Your task to perform on an android device: Open the calendar and show me this week's events? Image 0: 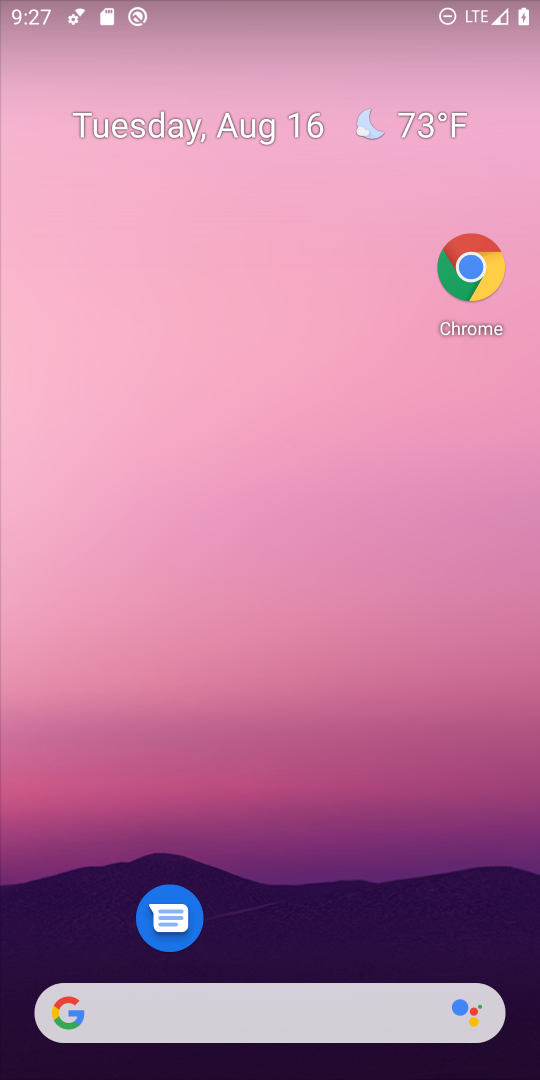
Step 0: drag from (270, 961) to (213, 113)
Your task to perform on an android device: Open the calendar and show me this week's events? Image 1: 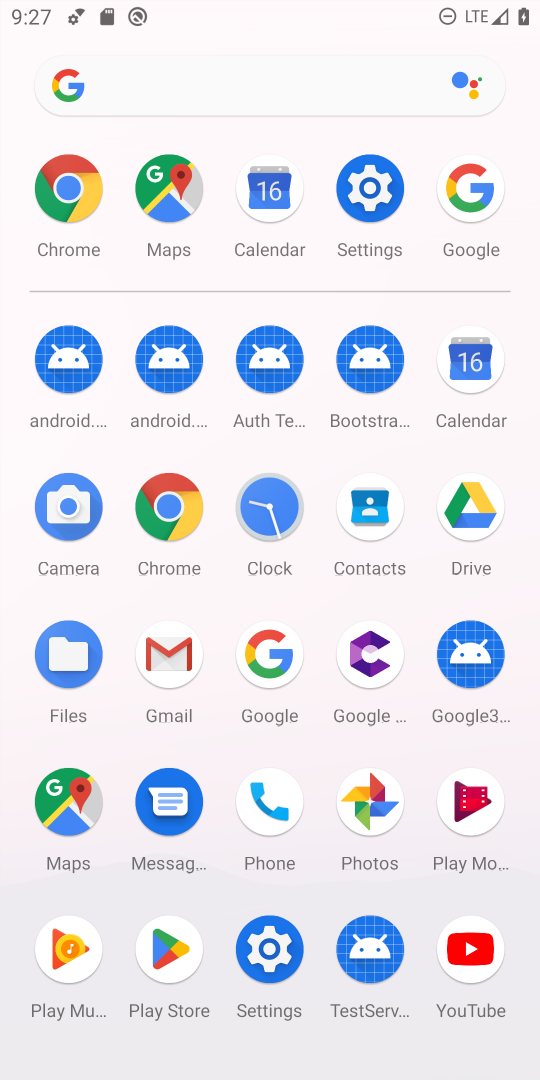
Step 1: click (477, 393)
Your task to perform on an android device: Open the calendar and show me this week's events? Image 2: 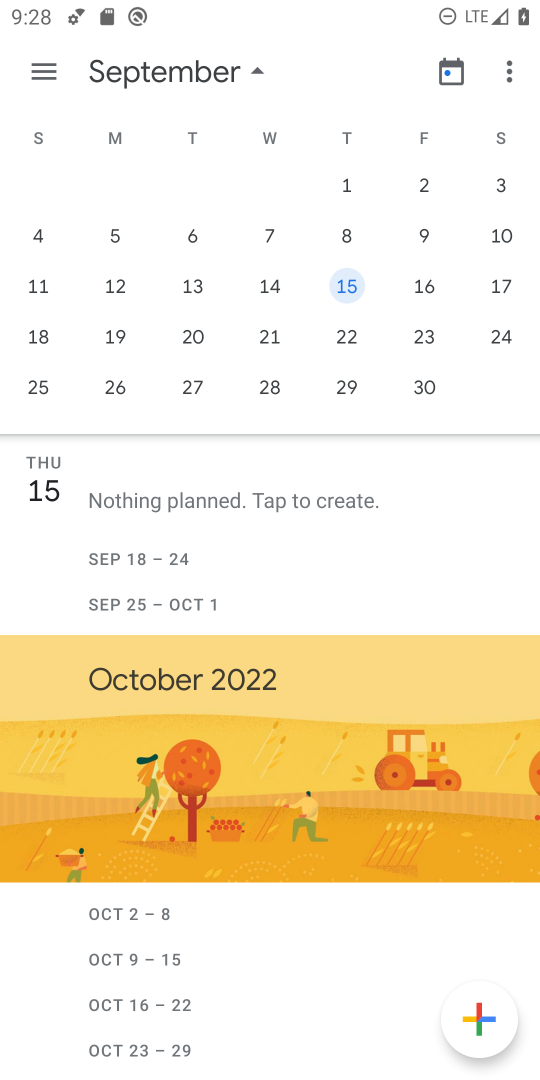
Step 2: drag from (83, 293) to (509, 323)
Your task to perform on an android device: Open the calendar and show me this week's events? Image 3: 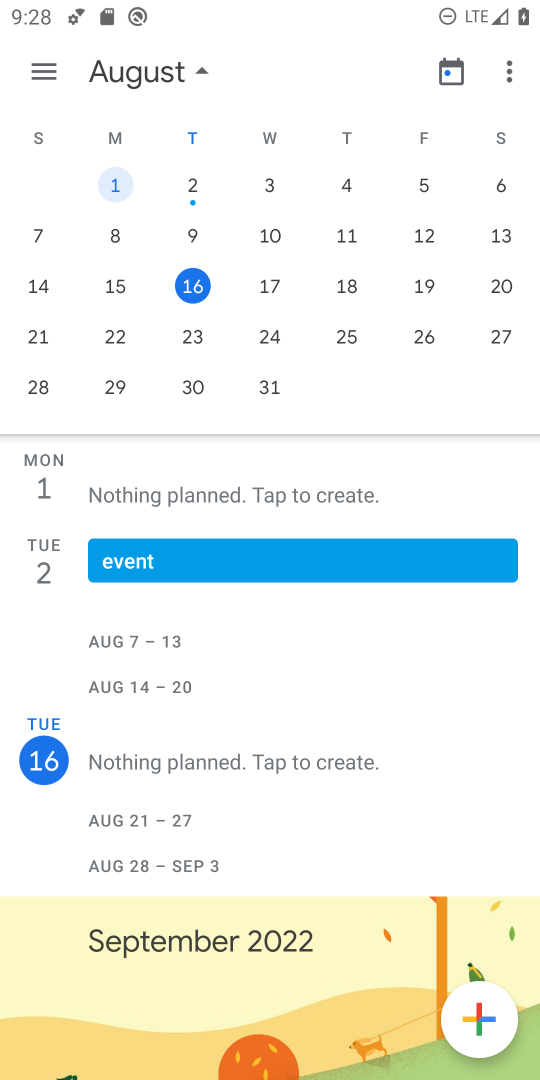
Step 3: click (193, 273)
Your task to perform on an android device: Open the calendar and show me this week's events? Image 4: 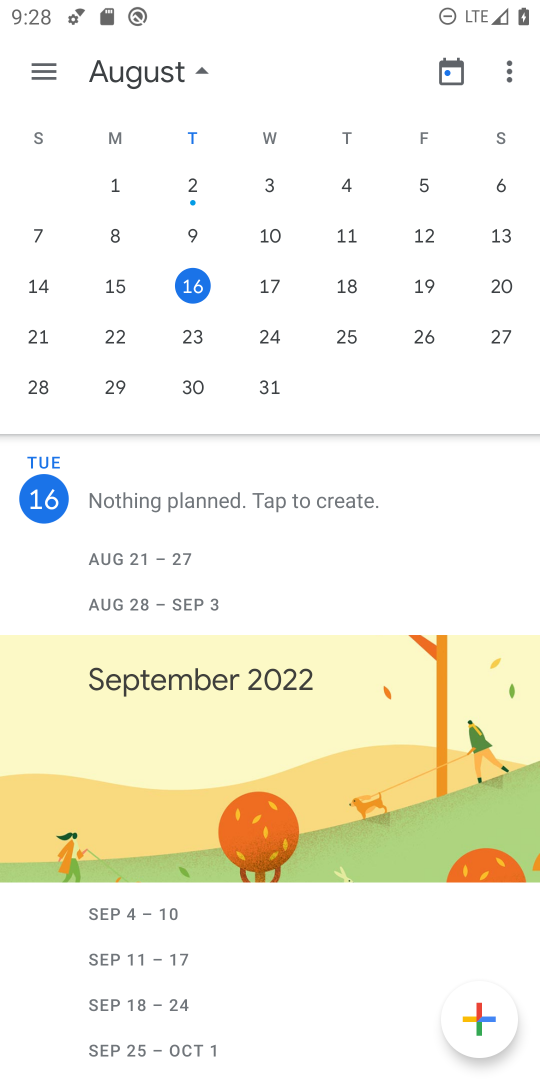
Step 4: task complete